Your task to perform on an android device: Open privacy settings Image 0: 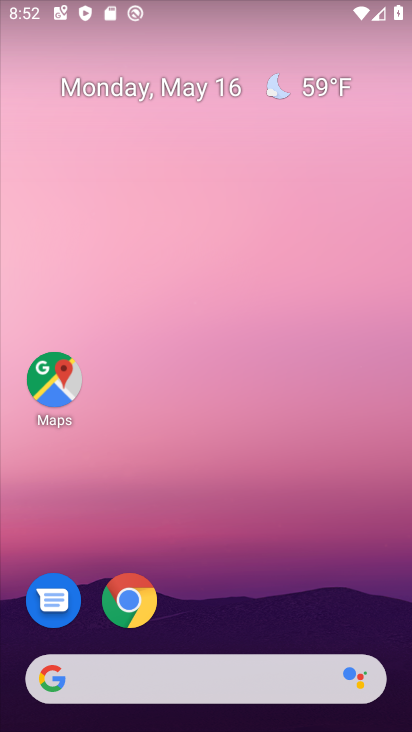
Step 0: drag from (194, 645) to (178, 273)
Your task to perform on an android device: Open privacy settings Image 1: 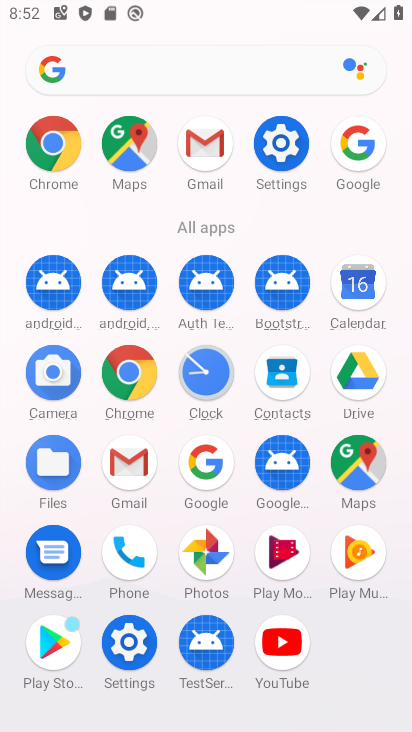
Step 1: click (275, 151)
Your task to perform on an android device: Open privacy settings Image 2: 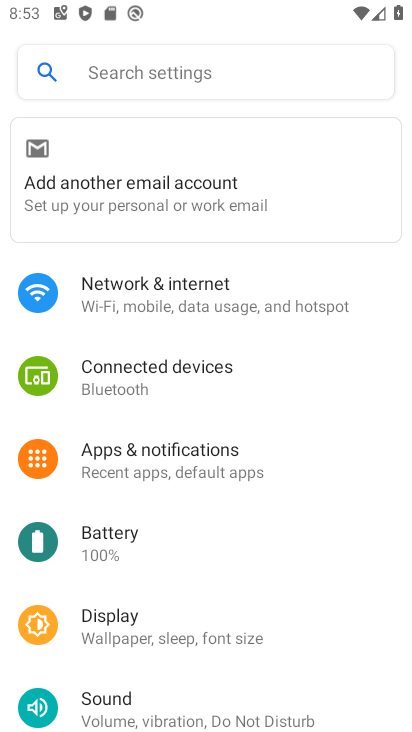
Step 2: drag from (138, 674) to (181, 237)
Your task to perform on an android device: Open privacy settings Image 3: 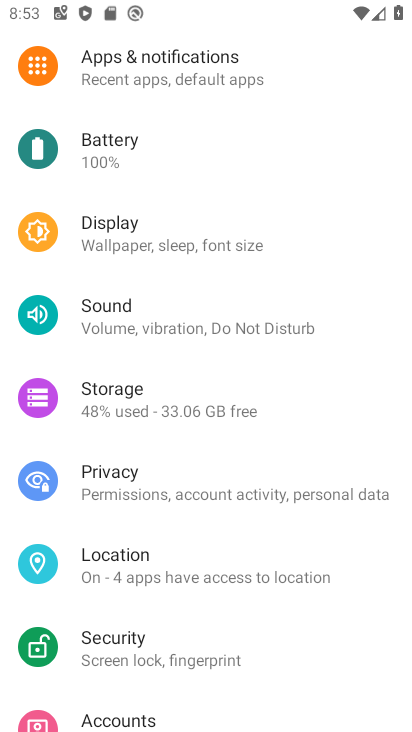
Step 3: drag from (118, 687) to (198, 375)
Your task to perform on an android device: Open privacy settings Image 4: 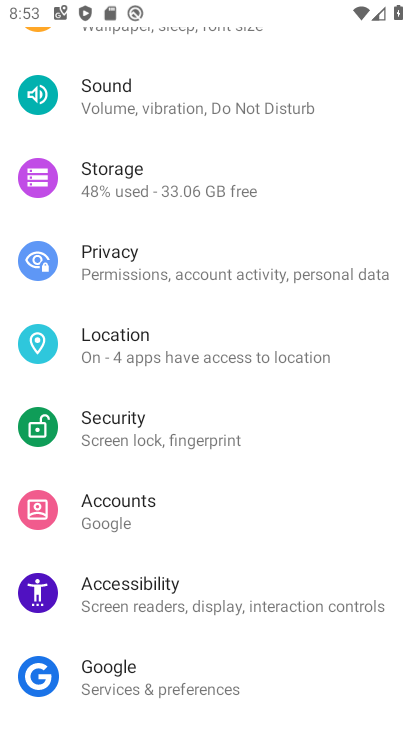
Step 4: click (123, 274)
Your task to perform on an android device: Open privacy settings Image 5: 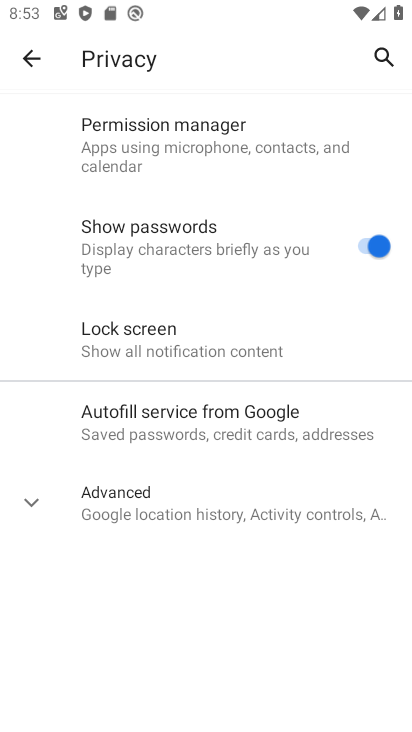
Step 5: click (167, 496)
Your task to perform on an android device: Open privacy settings Image 6: 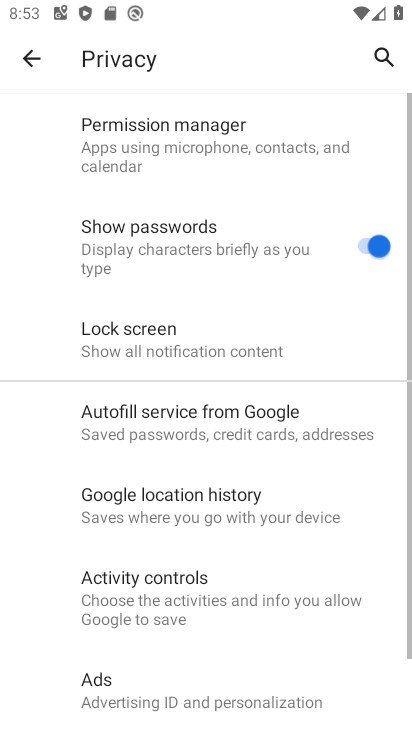
Step 6: task complete